Your task to perform on an android device: Open calendar and show me the first week of next month Image 0: 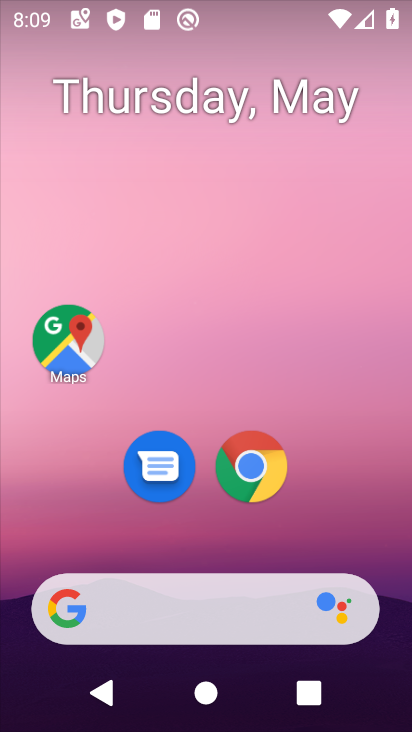
Step 0: drag from (379, 513) to (370, 16)
Your task to perform on an android device: Open calendar and show me the first week of next month Image 1: 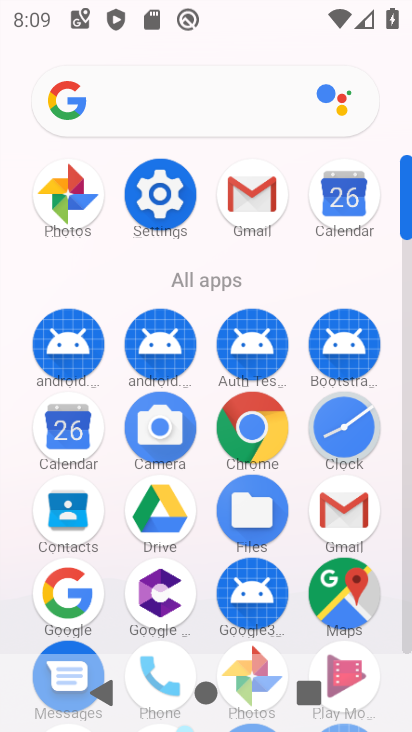
Step 1: click (339, 212)
Your task to perform on an android device: Open calendar and show me the first week of next month Image 2: 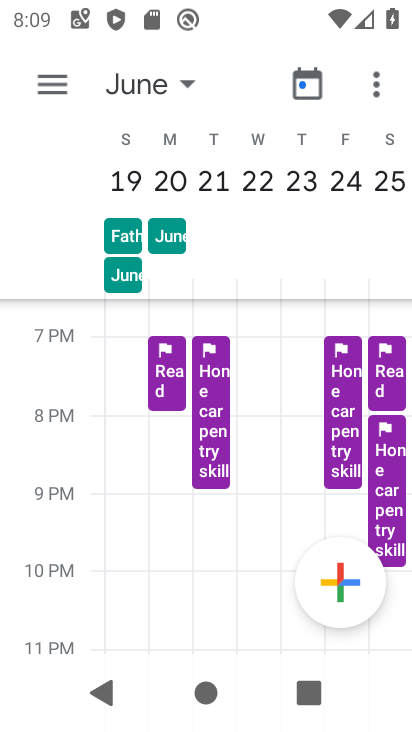
Step 2: task complete